Your task to perform on an android device: toggle improve location accuracy Image 0: 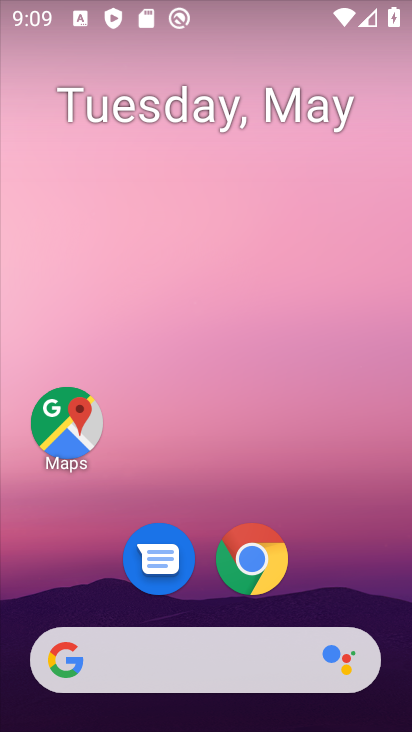
Step 0: drag from (182, 640) to (156, 3)
Your task to perform on an android device: toggle improve location accuracy Image 1: 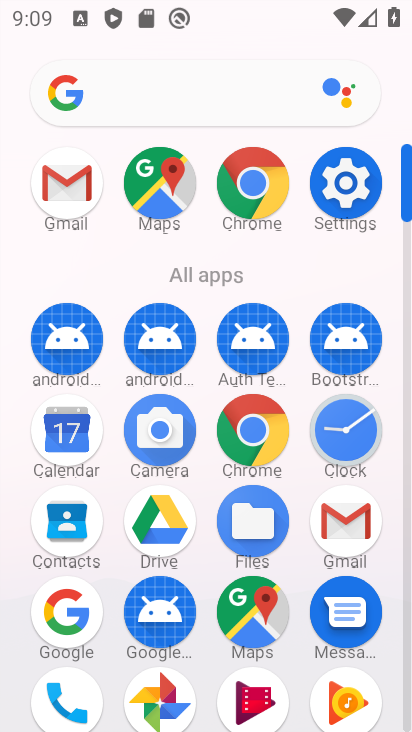
Step 1: click (361, 207)
Your task to perform on an android device: toggle improve location accuracy Image 2: 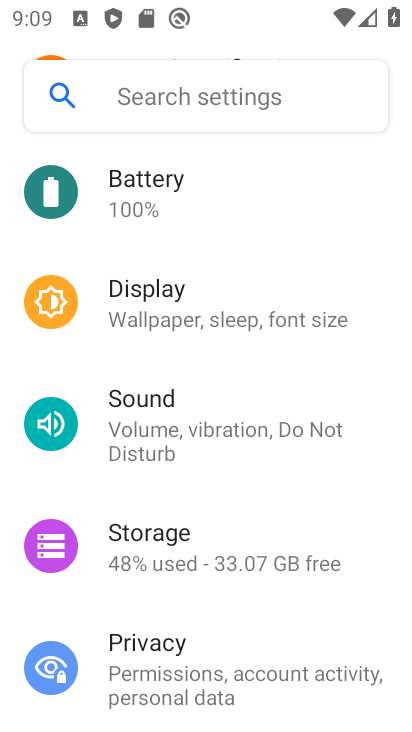
Step 2: drag from (169, 653) to (158, 54)
Your task to perform on an android device: toggle improve location accuracy Image 3: 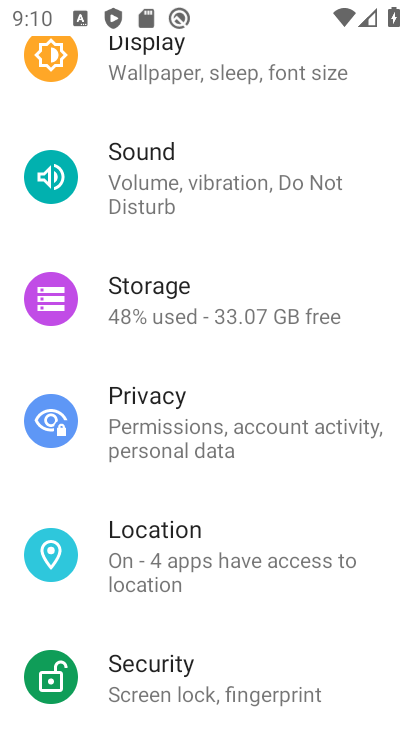
Step 3: click (160, 551)
Your task to perform on an android device: toggle improve location accuracy Image 4: 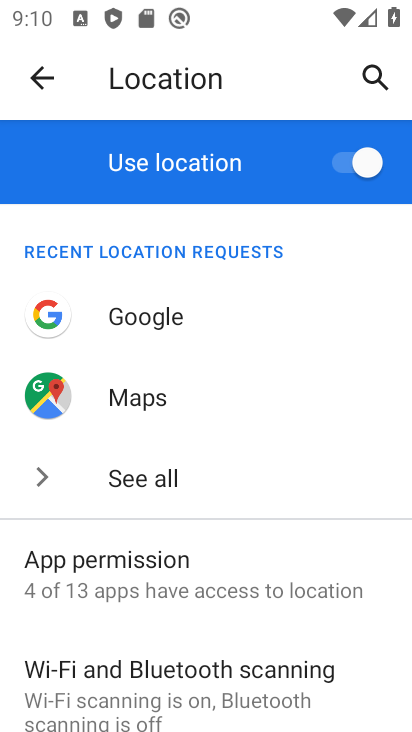
Step 4: drag from (191, 650) to (156, 274)
Your task to perform on an android device: toggle improve location accuracy Image 5: 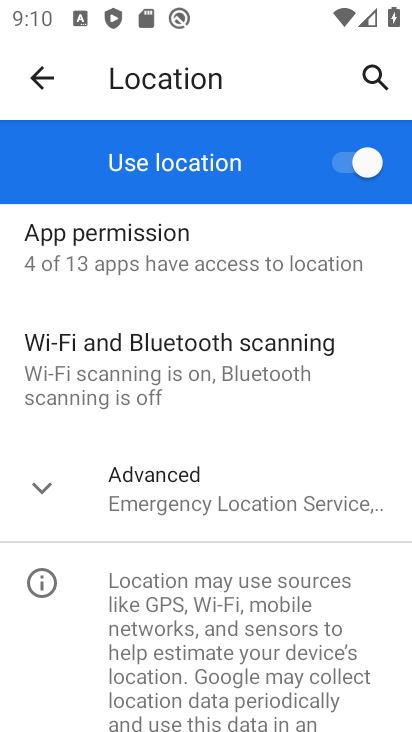
Step 5: click (160, 513)
Your task to perform on an android device: toggle improve location accuracy Image 6: 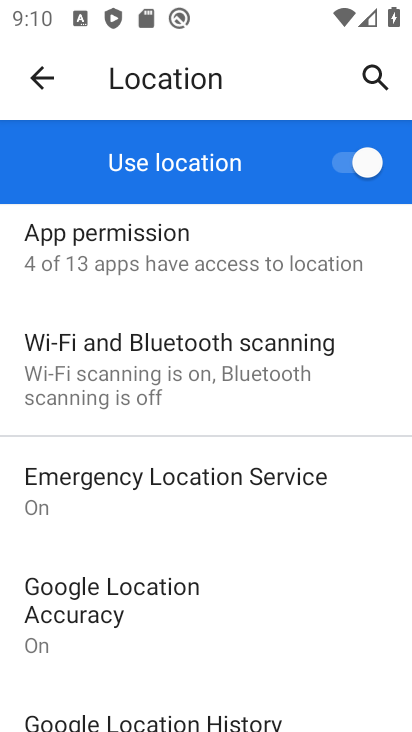
Step 6: click (145, 584)
Your task to perform on an android device: toggle improve location accuracy Image 7: 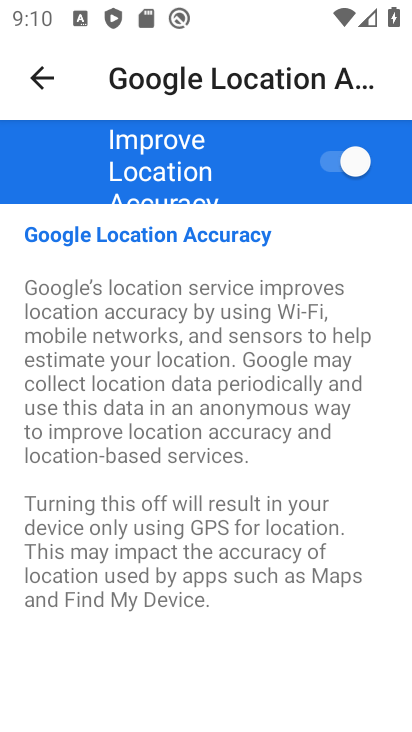
Step 7: click (331, 150)
Your task to perform on an android device: toggle improve location accuracy Image 8: 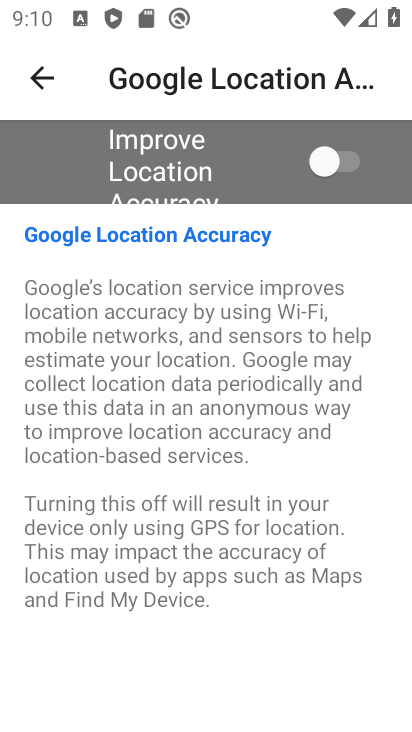
Step 8: task complete